Your task to perform on an android device: toggle translation in the chrome app Image 0: 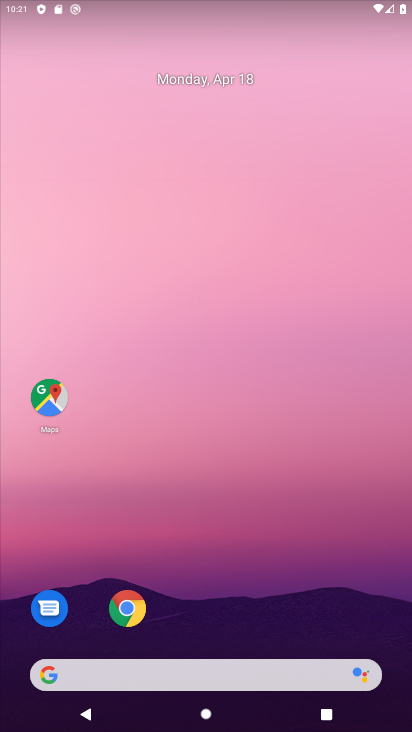
Step 0: drag from (323, 622) to (252, 292)
Your task to perform on an android device: toggle translation in the chrome app Image 1: 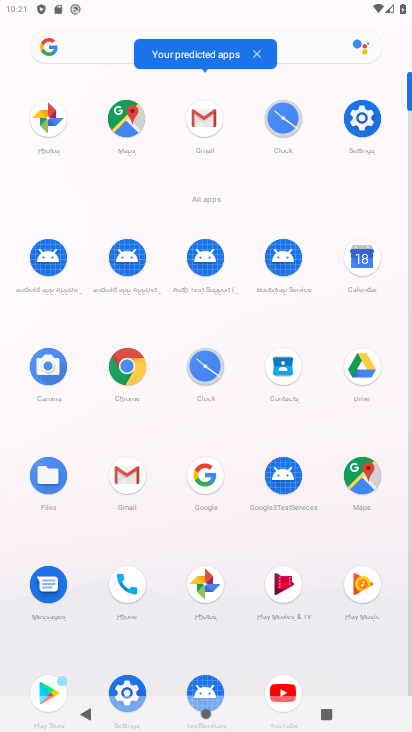
Step 1: click (140, 360)
Your task to perform on an android device: toggle translation in the chrome app Image 2: 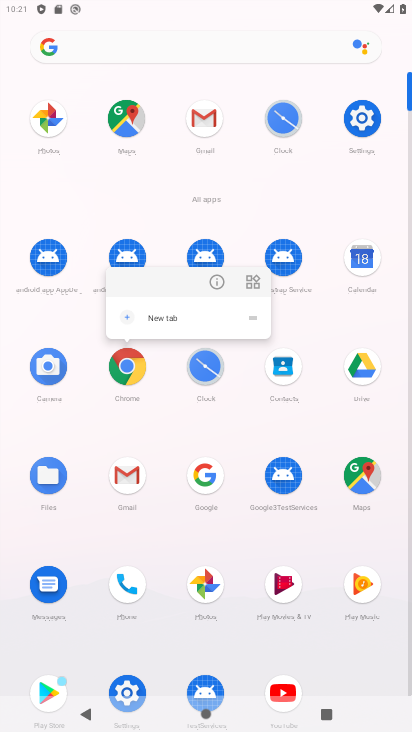
Step 2: click (134, 365)
Your task to perform on an android device: toggle translation in the chrome app Image 3: 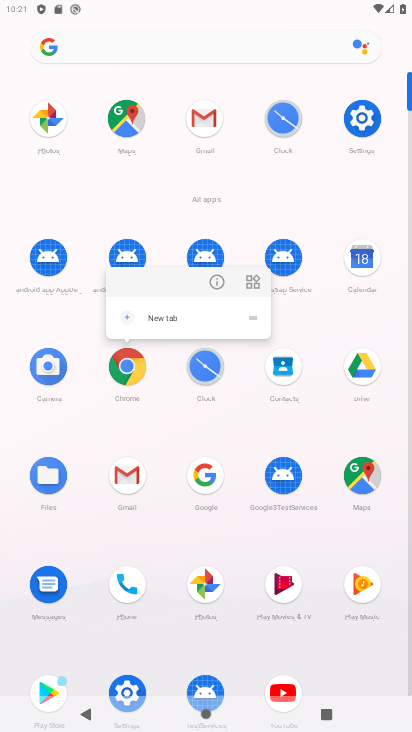
Step 3: click (134, 365)
Your task to perform on an android device: toggle translation in the chrome app Image 4: 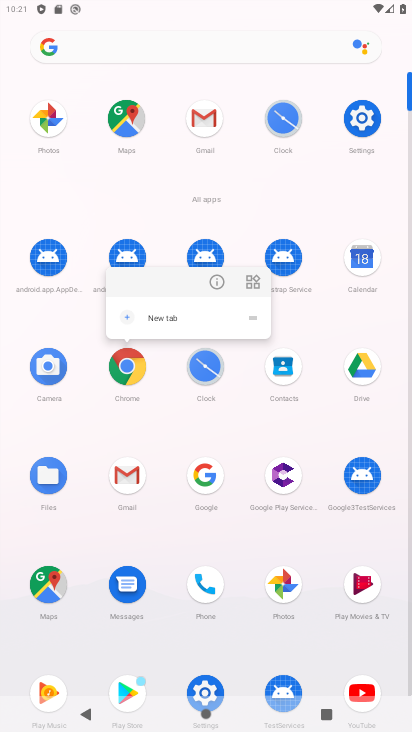
Step 4: click (119, 368)
Your task to perform on an android device: toggle translation in the chrome app Image 5: 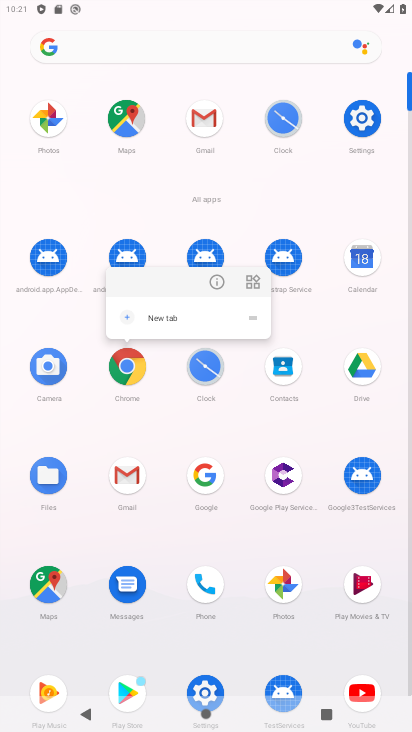
Step 5: click (125, 363)
Your task to perform on an android device: toggle translation in the chrome app Image 6: 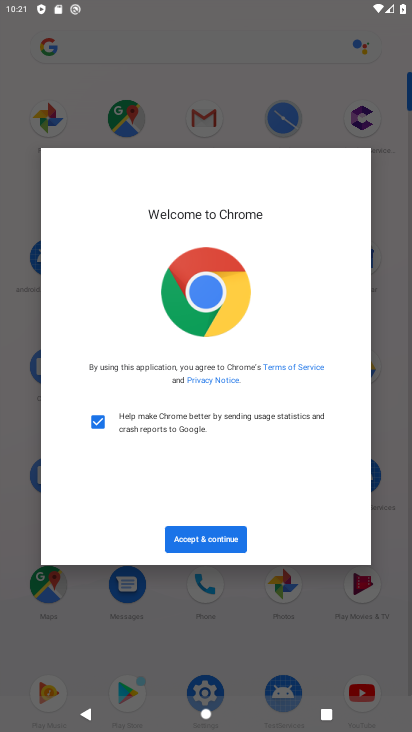
Step 6: click (206, 532)
Your task to perform on an android device: toggle translation in the chrome app Image 7: 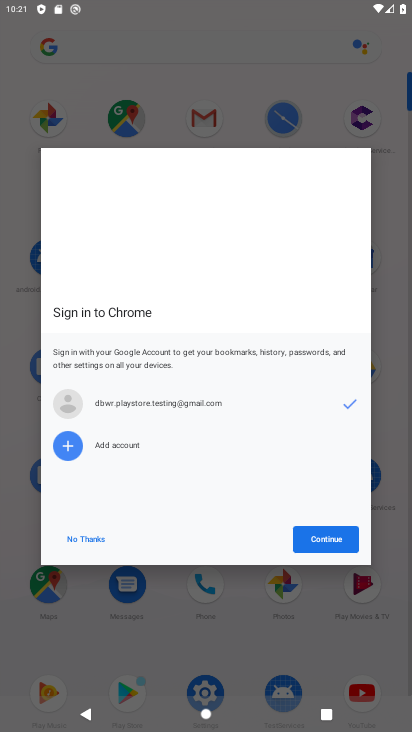
Step 7: click (315, 537)
Your task to perform on an android device: toggle translation in the chrome app Image 8: 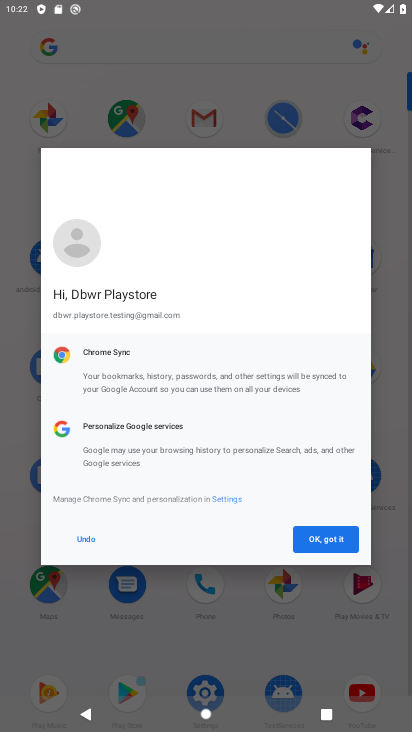
Step 8: click (315, 537)
Your task to perform on an android device: toggle translation in the chrome app Image 9: 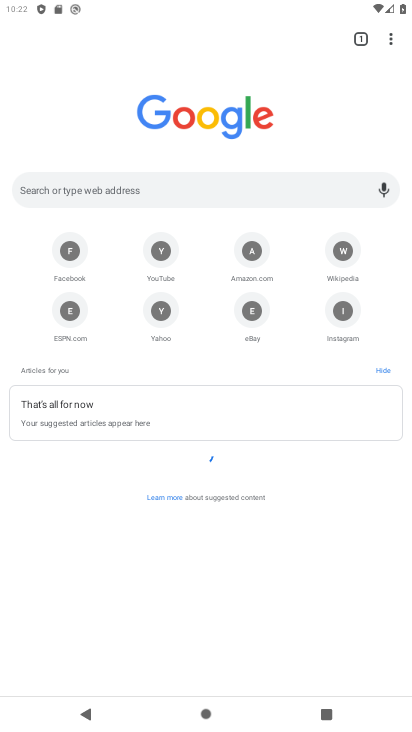
Step 9: click (394, 42)
Your task to perform on an android device: toggle translation in the chrome app Image 10: 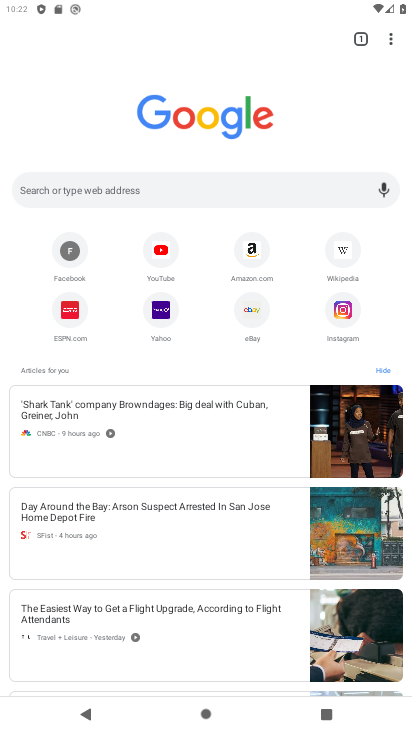
Step 10: drag from (394, 42) to (291, 328)
Your task to perform on an android device: toggle translation in the chrome app Image 11: 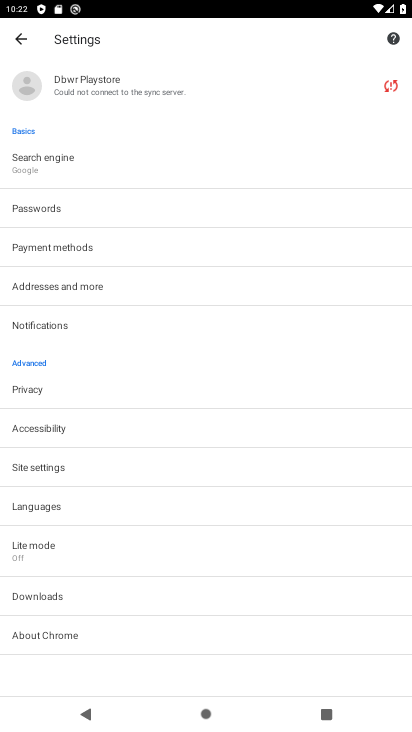
Step 11: click (177, 468)
Your task to perform on an android device: toggle translation in the chrome app Image 12: 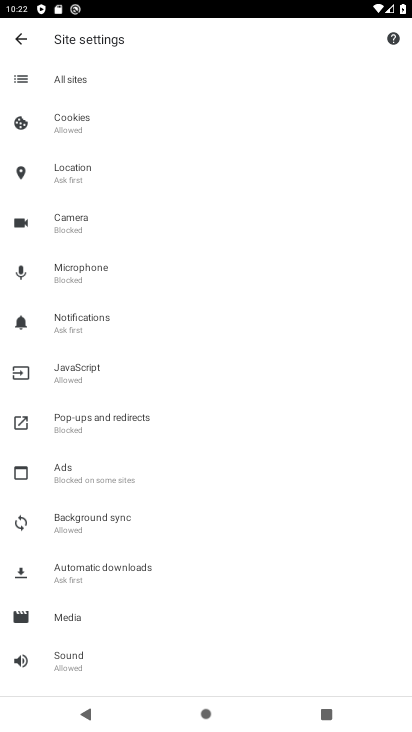
Step 12: click (90, 711)
Your task to perform on an android device: toggle translation in the chrome app Image 13: 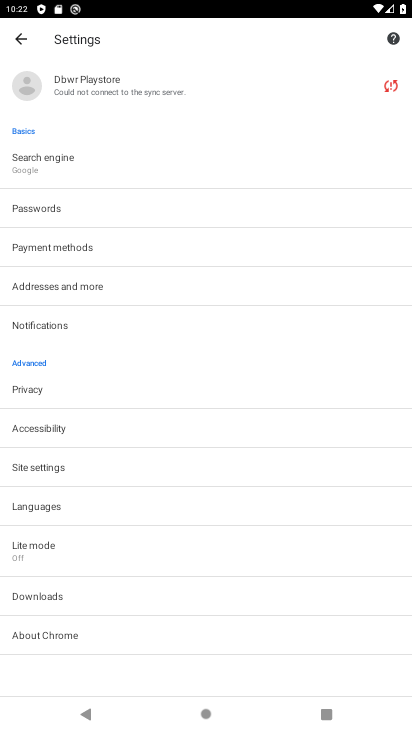
Step 13: click (353, 504)
Your task to perform on an android device: toggle translation in the chrome app Image 14: 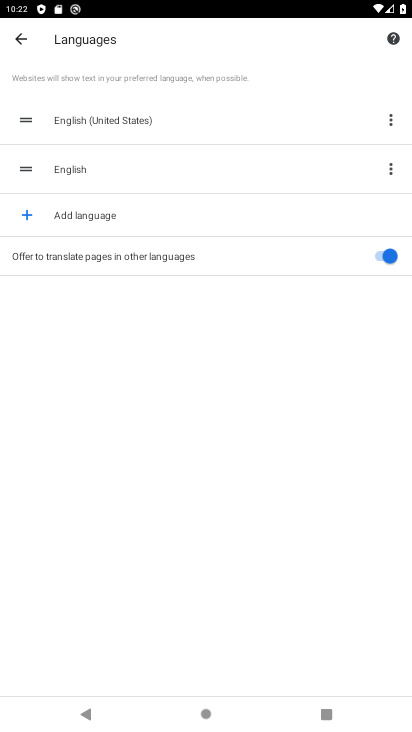
Step 14: click (384, 256)
Your task to perform on an android device: toggle translation in the chrome app Image 15: 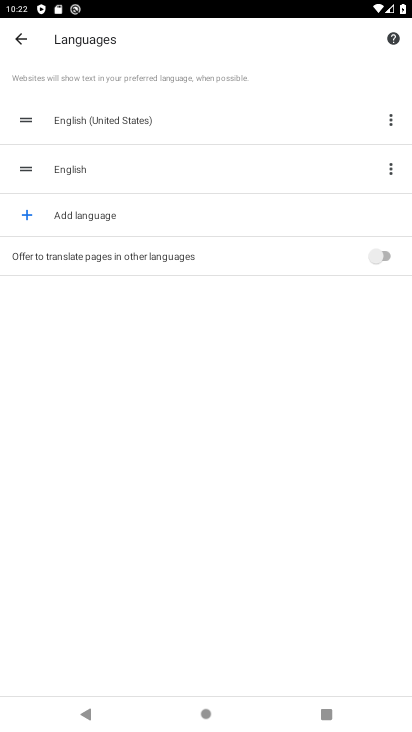
Step 15: task complete